Your task to perform on an android device: clear all cookies in the chrome app Image 0: 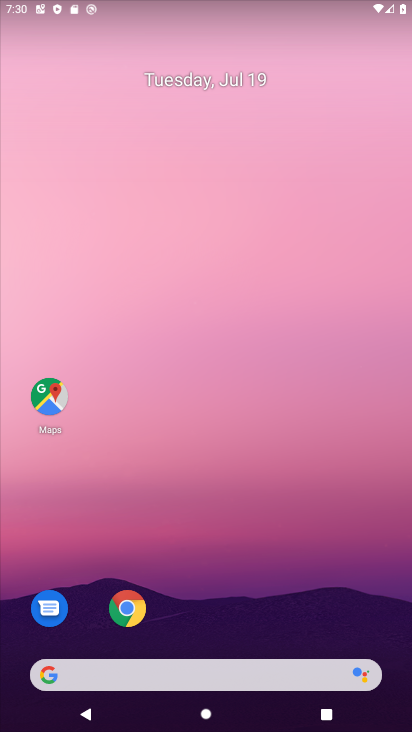
Step 0: click (129, 604)
Your task to perform on an android device: clear all cookies in the chrome app Image 1: 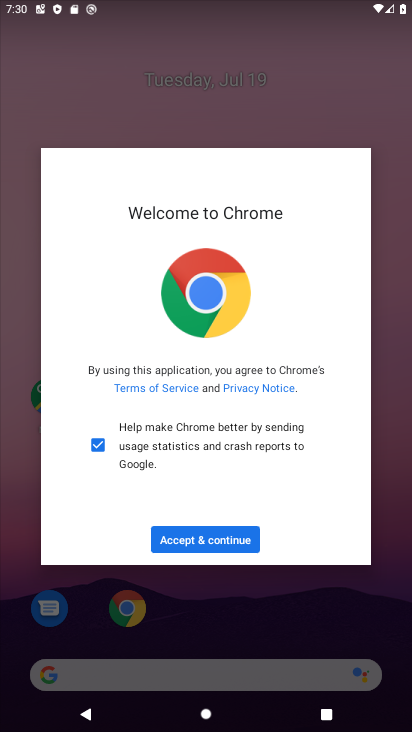
Step 1: click (181, 537)
Your task to perform on an android device: clear all cookies in the chrome app Image 2: 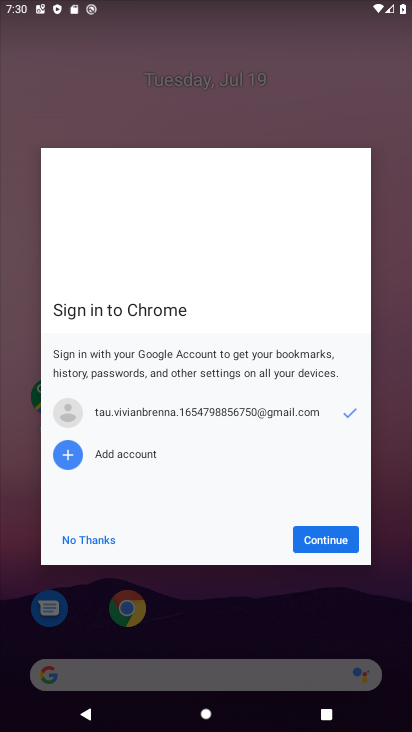
Step 2: click (327, 537)
Your task to perform on an android device: clear all cookies in the chrome app Image 3: 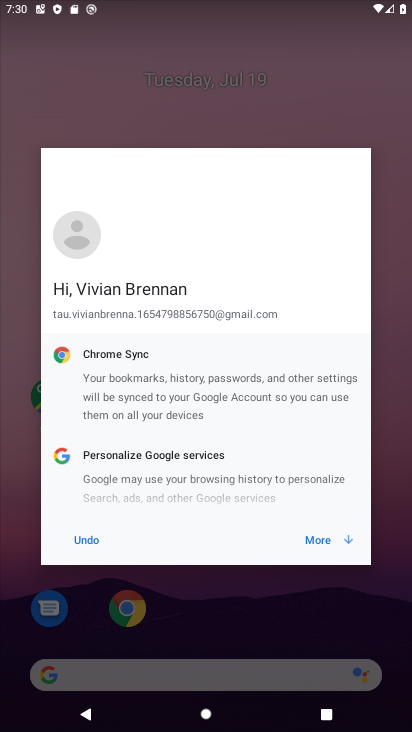
Step 3: click (327, 537)
Your task to perform on an android device: clear all cookies in the chrome app Image 4: 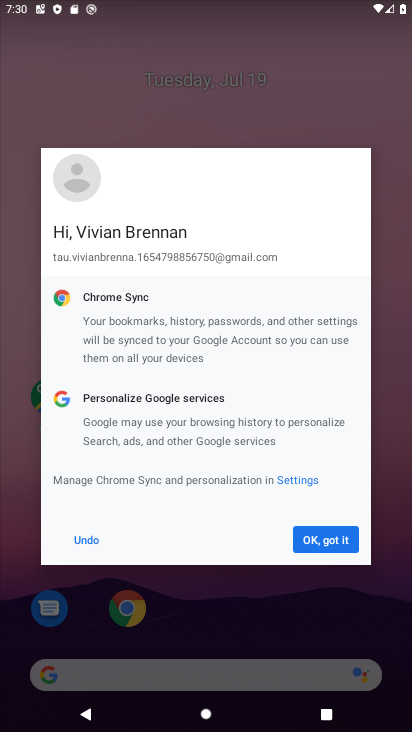
Step 4: click (327, 537)
Your task to perform on an android device: clear all cookies in the chrome app Image 5: 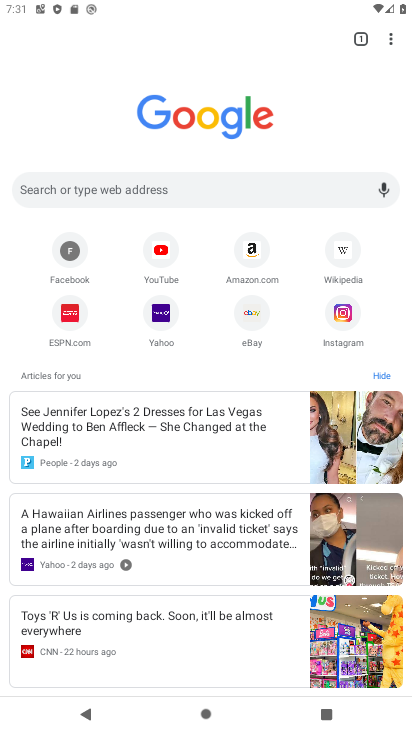
Step 5: drag from (392, 29) to (261, 329)
Your task to perform on an android device: clear all cookies in the chrome app Image 6: 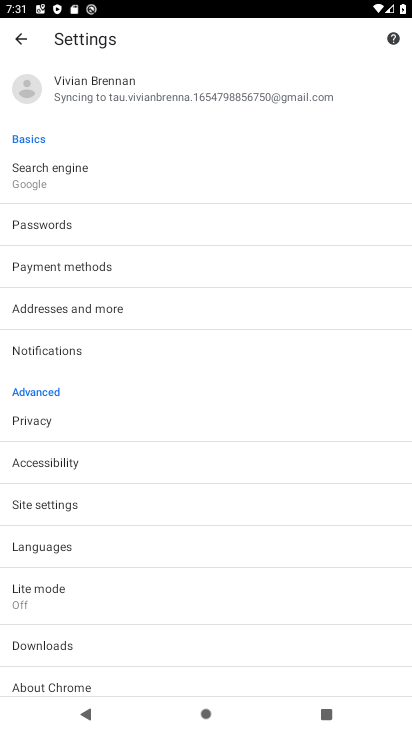
Step 6: click (42, 422)
Your task to perform on an android device: clear all cookies in the chrome app Image 7: 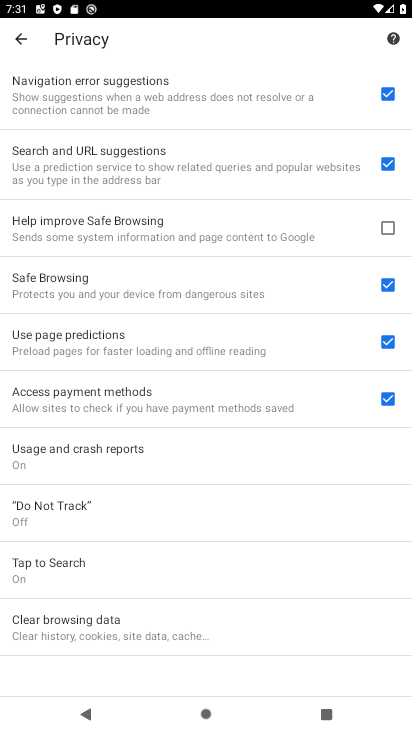
Step 7: click (106, 633)
Your task to perform on an android device: clear all cookies in the chrome app Image 8: 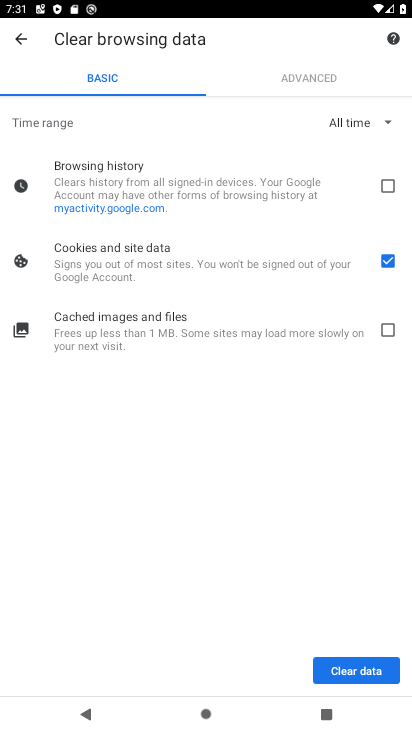
Step 8: click (346, 675)
Your task to perform on an android device: clear all cookies in the chrome app Image 9: 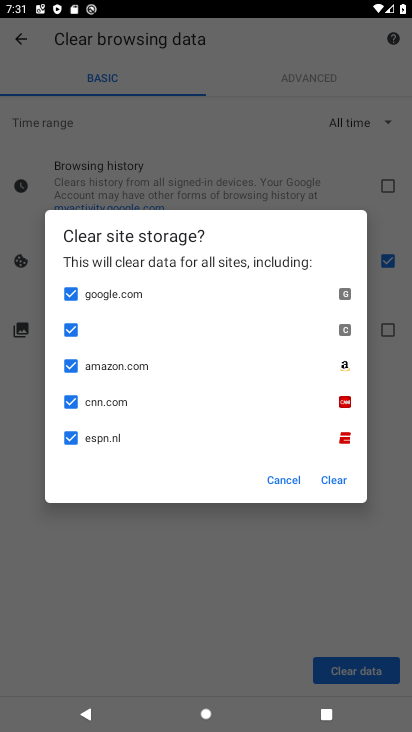
Step 9: click (330, 481)
Your task to perform on an android device: clear all cookies in the chrome app Image 10: 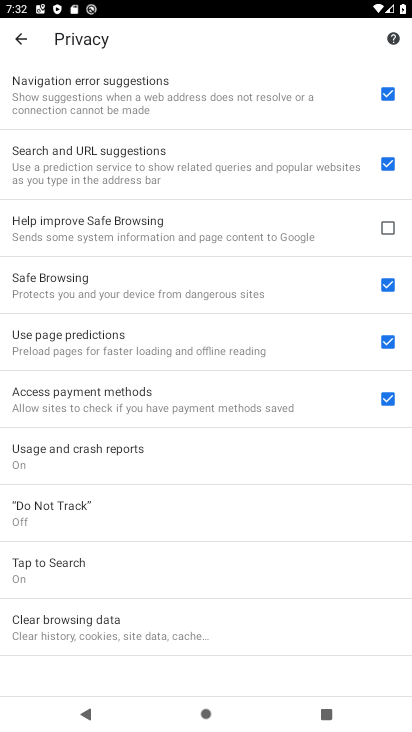
Step 10: task complete